Your task to perform on an android device: toggle javascript in the chrome app Image 0: 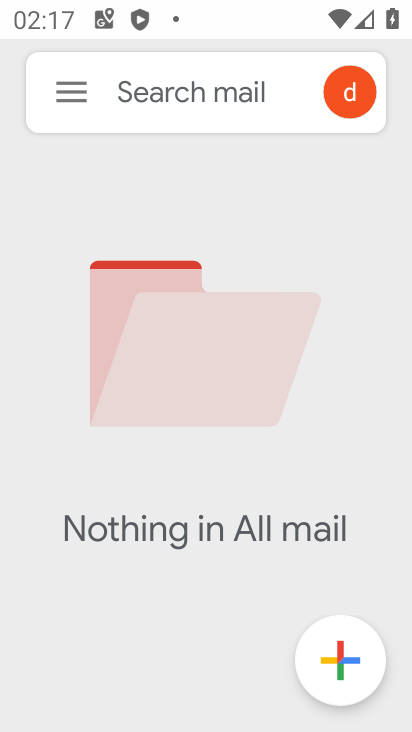
Step 0: press home button
Your task to perform on an android device: toggle javascript in the chrome app Image 1: 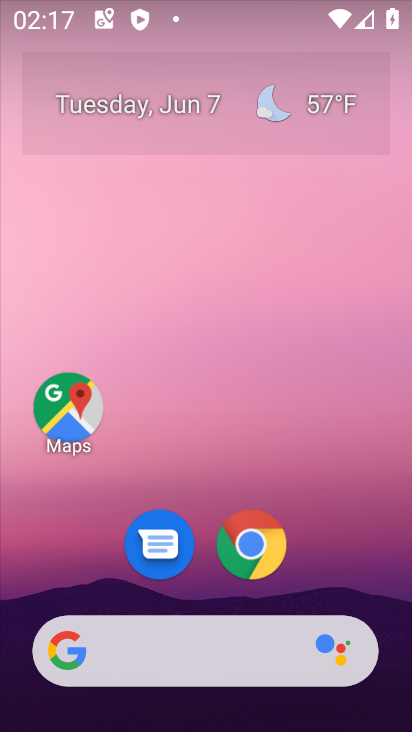
Step 1: click (256, 559)
Your task to perform on an android device: toggle javascript in the chrome app Image 2: 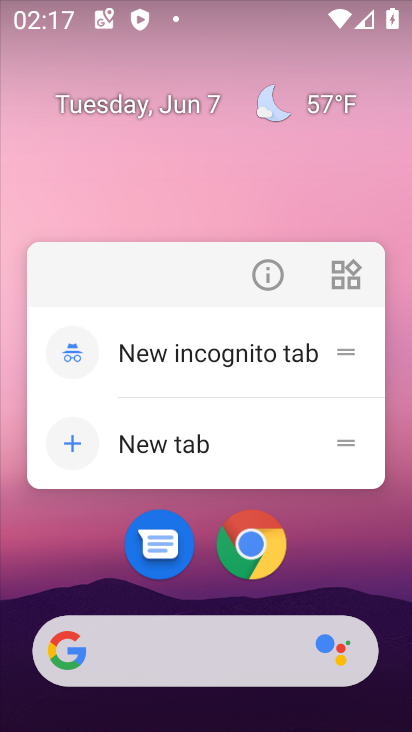
Step 2: click (265, 538)
Your task to perform on an android device: toggle javascript in the chrome app Image 3: 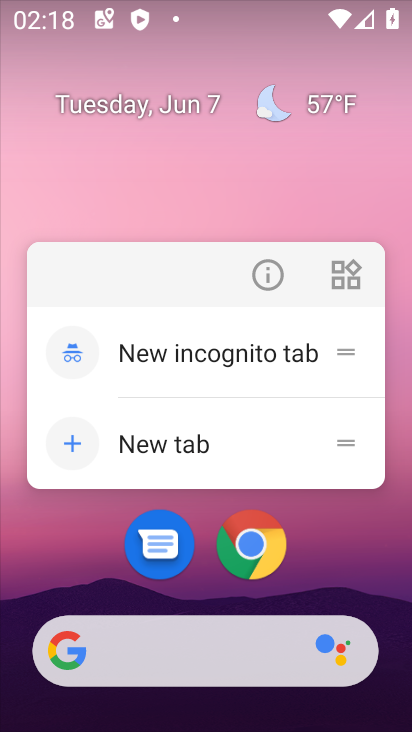
Step 3: click (236, 541)
Your task to perform on an android device: toggle javascript in the chrome app Image 4: 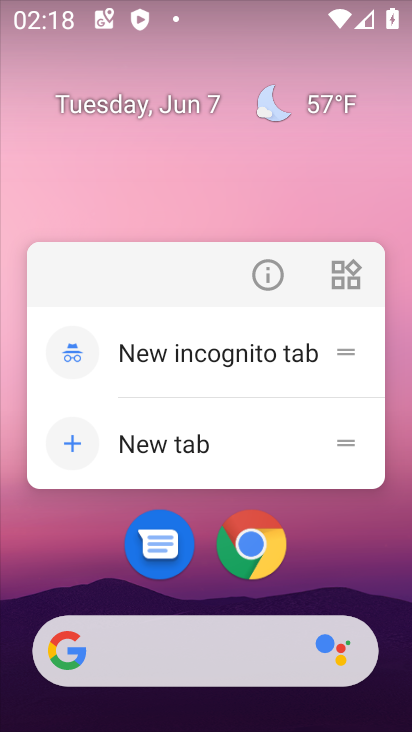
Step 4: click (235, 545)
Your task to perform on an android device: toggle javascript in the chrome app Image 5: 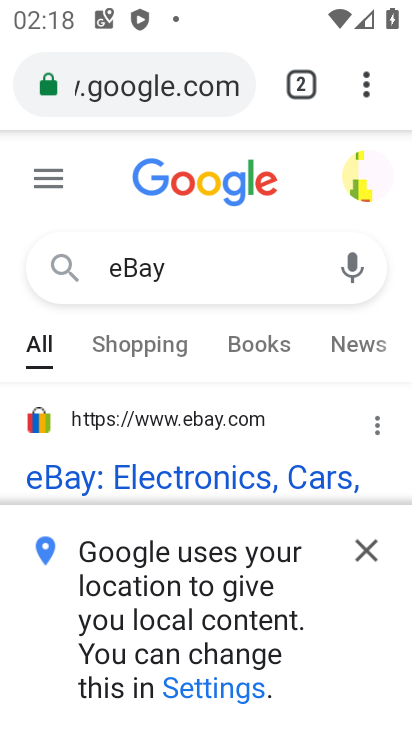
Step 5: click (376, 102)
Your task to perform on an android device: toggle javascript in the chrome app Image 6: 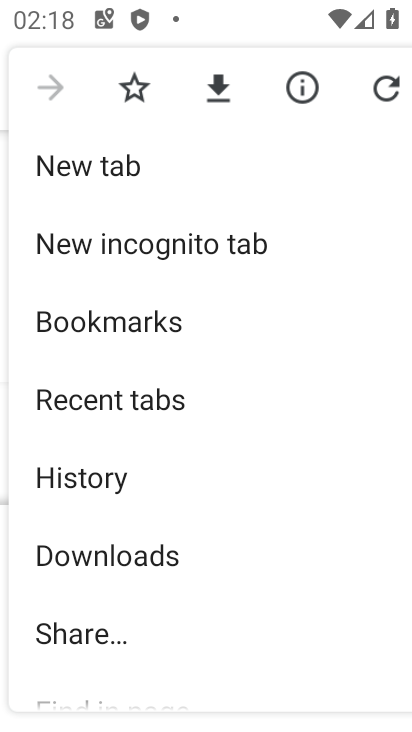
Step 6: drag from (97, 632) to (151, 299)
Your task to perform on an android device: toggle javascript in the chrome app Image 7: 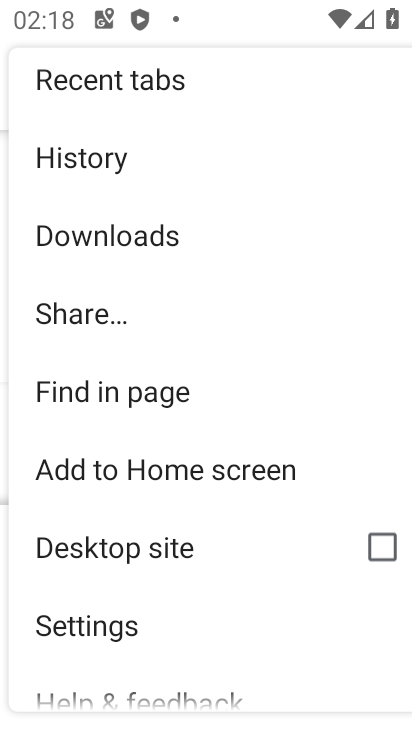
Step 7: drag from (102, 662) to (141, 387)
Your task to perform on an android device: toggle javascript in the chrome app Image 8: 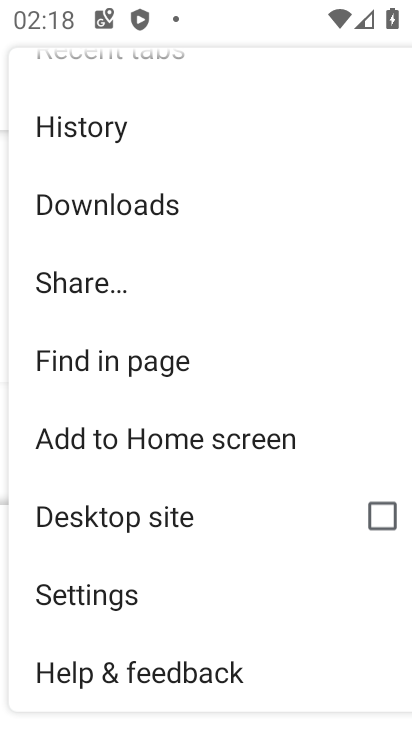
Step 8: click (105, 573)
Your task to perform on an android device: toggle javascript in the chrome app Image 9: 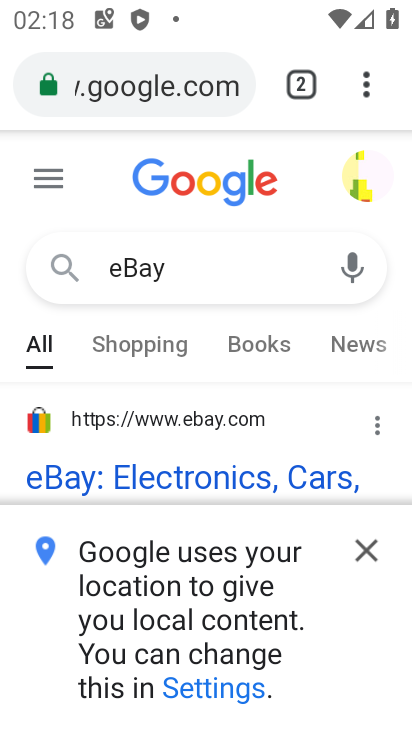
Step 9: click (105, 577)
Your task to perform on an android device: toggle javascript in the chrome app Image 10: 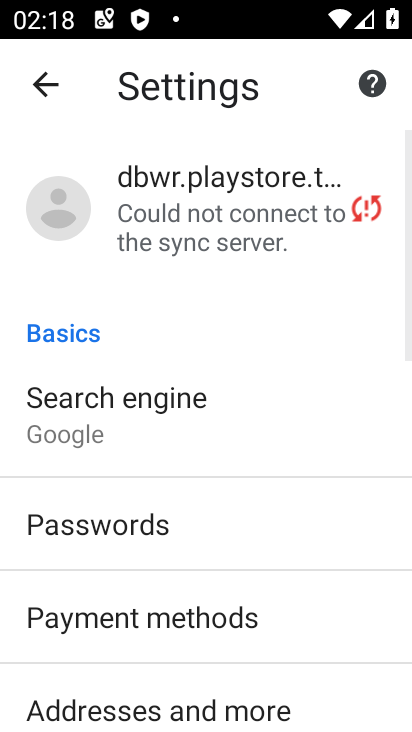
Step 10: drag from (93, 457) to (130, 203)
Your task to perform on an android device: toggle javascript in the chrome app Image 11: 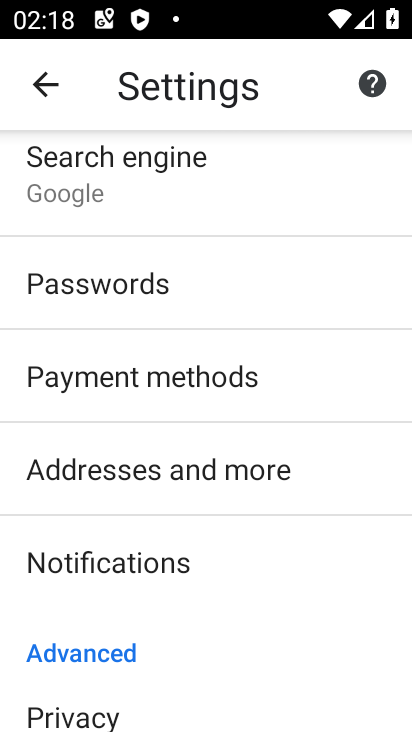
Step 11: drag from (115, 618) to (167, 184)
Your task to perform on an android device: toggle javascript in the chrome app Image 12: 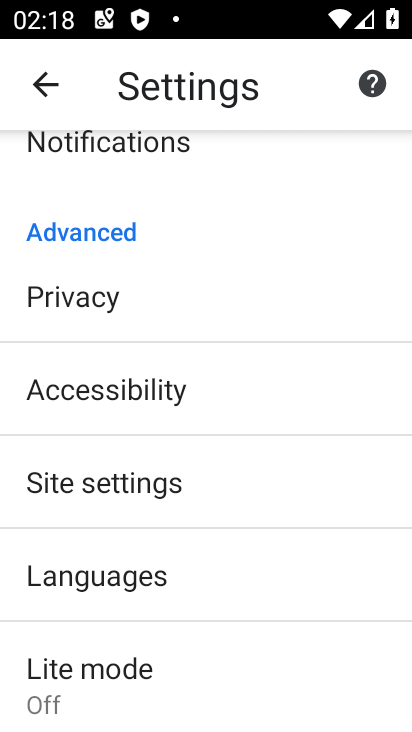
Step 12: click (98, 480)
Your task to perform on an android device: toggle javascript in the chrome app Image 13: 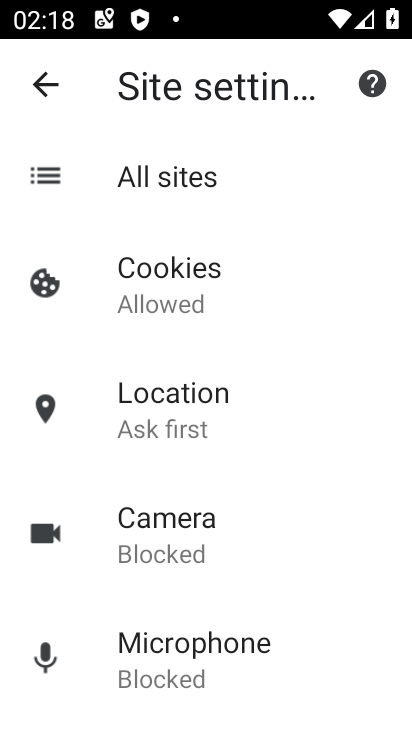
Step 13: drag from (180, 625) to (261, 242)
Your task to perform on an android device: toggle javascript in the chrome app Image 14: 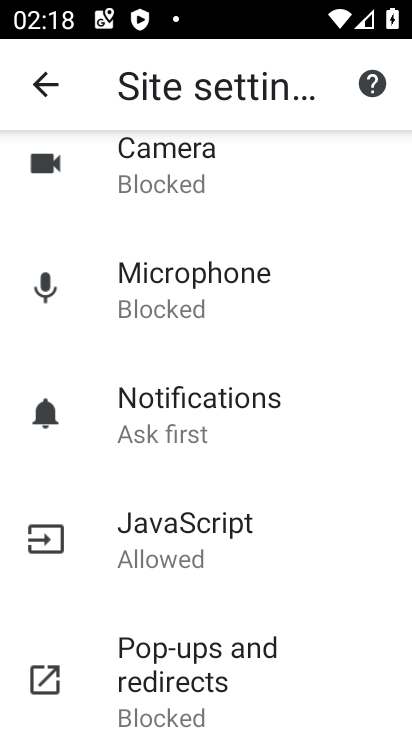
Step 14: click (163, 521)
Your task to perform on an android device: toggle javascript in the chrome app Image 15: 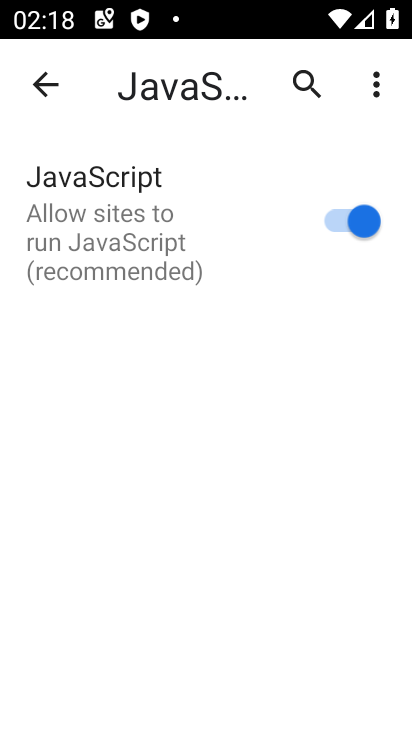
Step 15: click (357, 201)
Your task to perform on an android device: toggle javascript in the chrome app Image 16: 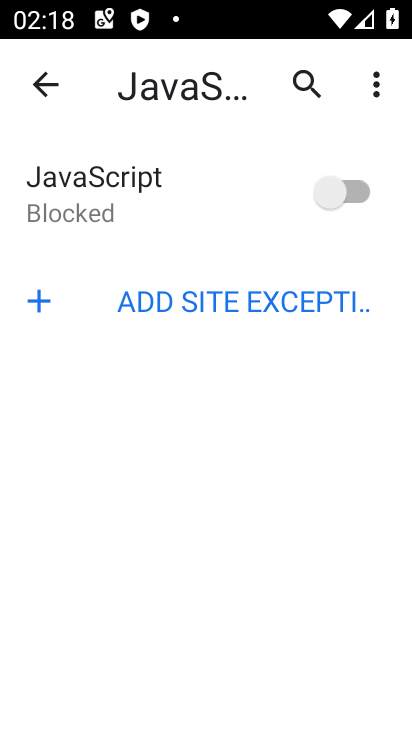
Step 16: task complete